Your task to perform on an android device: all mails in gmail Image 0: 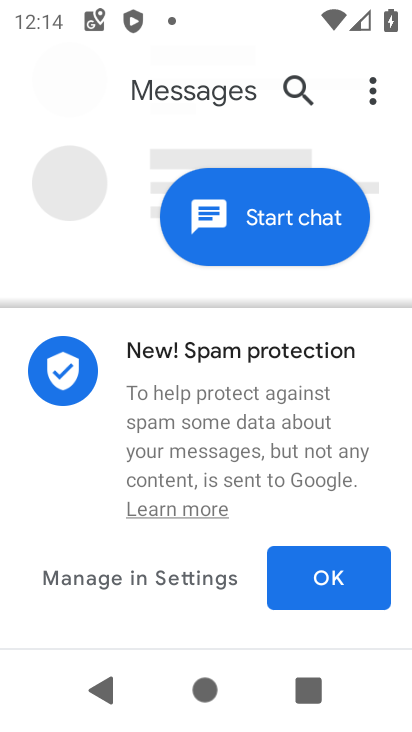
Step 0: press home button
Your task to perform on an android device: all mails in gmail Image 1: 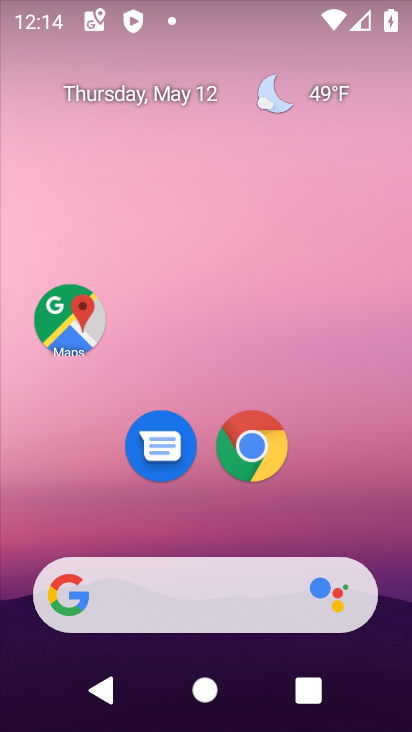
Step 1: drag from (324, 456) to (270, 73)
Your task to perform on an android device: all mails in gmail Image 2: 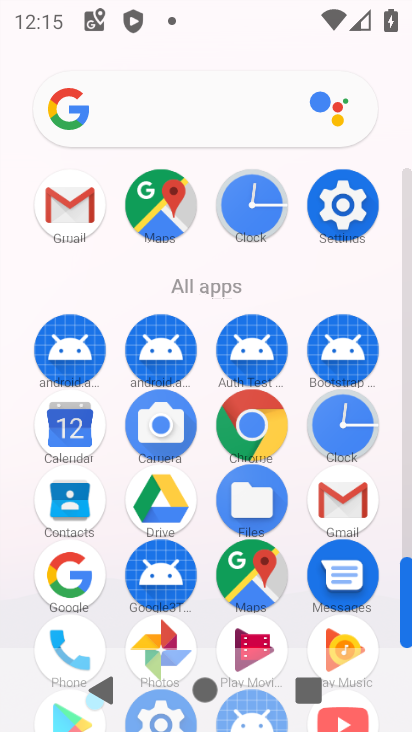
Step 2: click (79, 194)
Your task to perform on an android device: all mails in gmail Image 3: 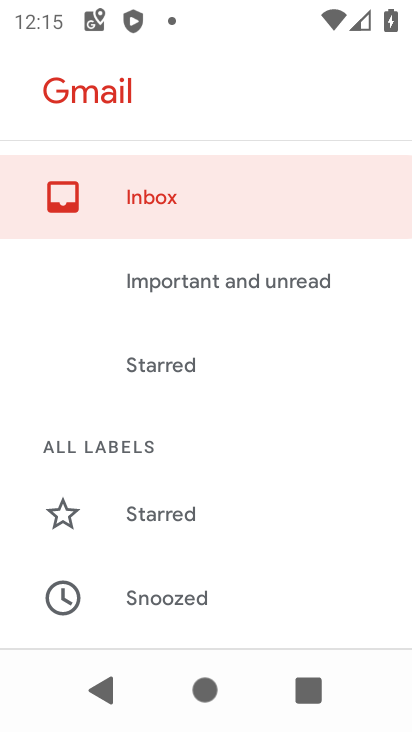
Step 3: drag from (143, 522) to (195, 166)
Your task to perform on an android device: all mails in gmail Image 4: 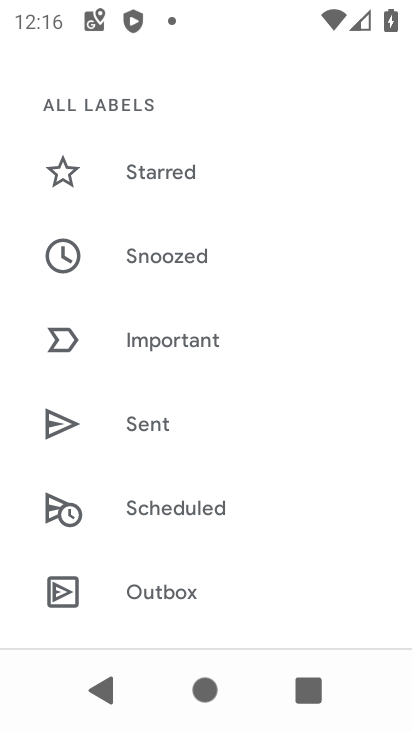
Step 4: drag from (268, 516) to (271, 143)
Your task to perform on an android device: all mails in gmail Image 5: 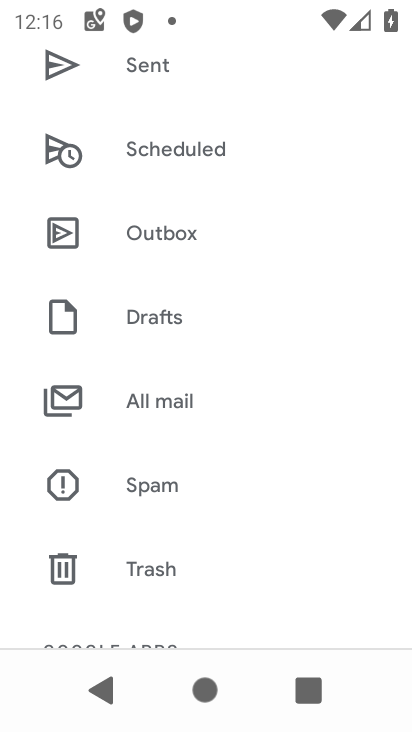
Step 5: click (141, 404)
Your task to perform on an android device: all mails in gmail Image 6: 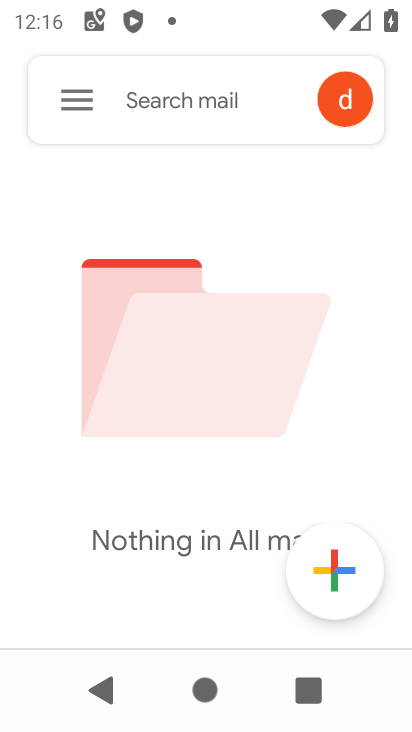
Step 6: task complete